Your task to perform on an android device: turn off location history Image 0: 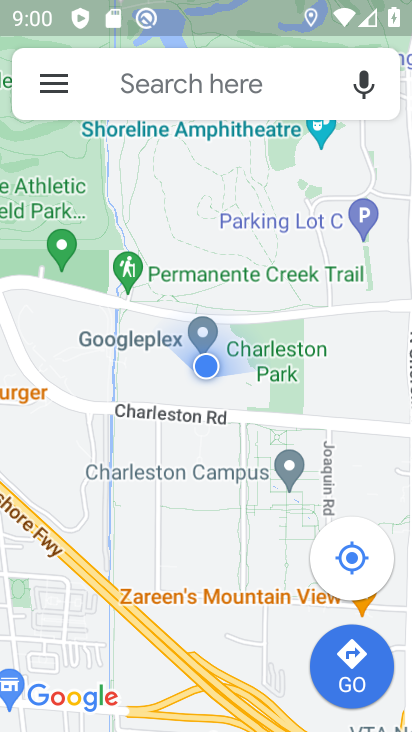
Step 0: click (34, 97)
Your task to perform on an android device: turn off location history Image 1: 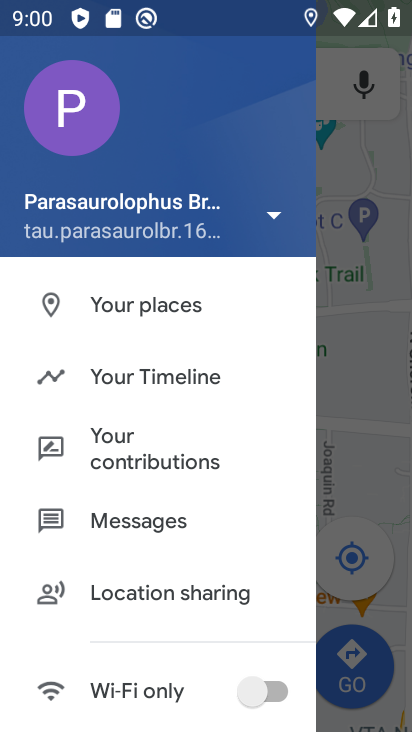
Step 1: click (151, 368)
Your task to perform on an android device: turn off location history Image 2: 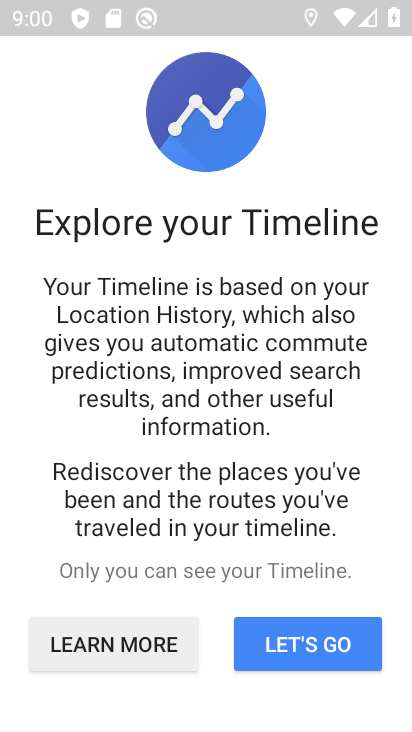
Step 2: click (331, 658)
Your task to perform on an android device: turn off location history Image 3: 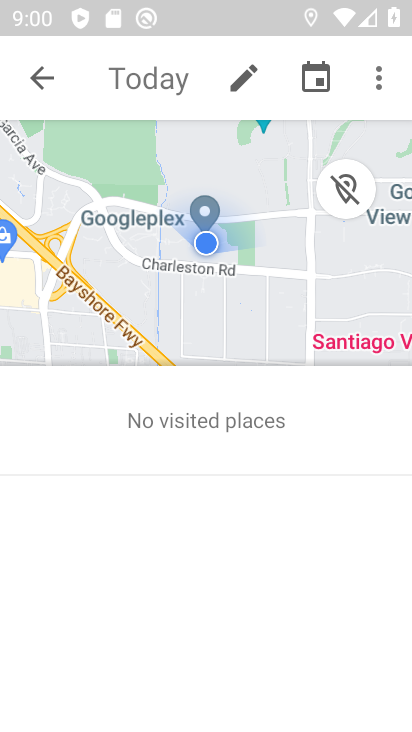
Step 3: click (375, 80)
Your task to perform on an android device: turn off location history Image 4: 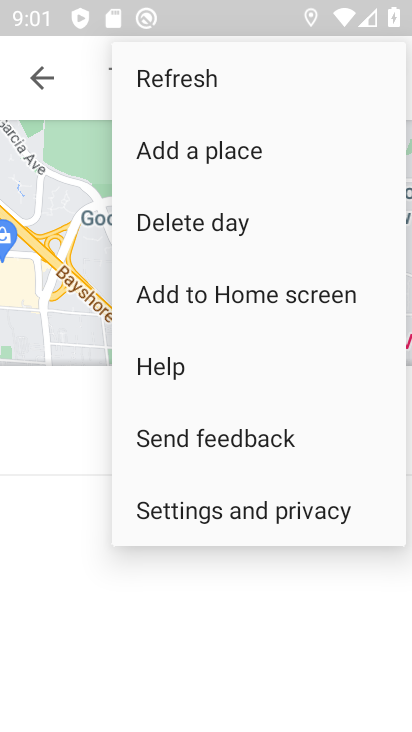
Step 4: click (253, 503)
Your task to perform on an android device: turn off location history Image 5: 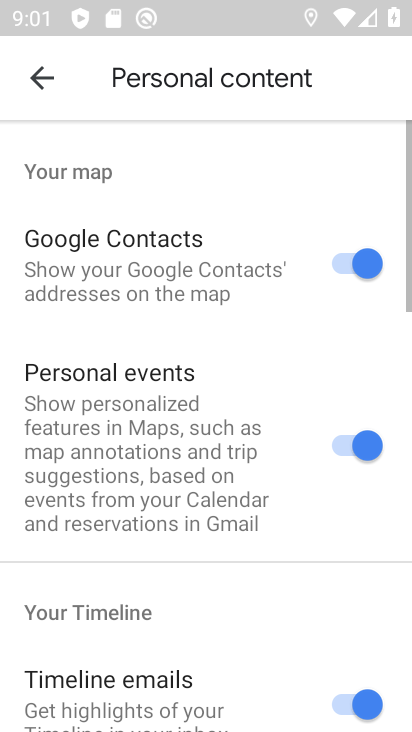
Step 5: drag from (275, 626) to (306, 328)
Your task to perform on an android device: turn off location history Image 6: 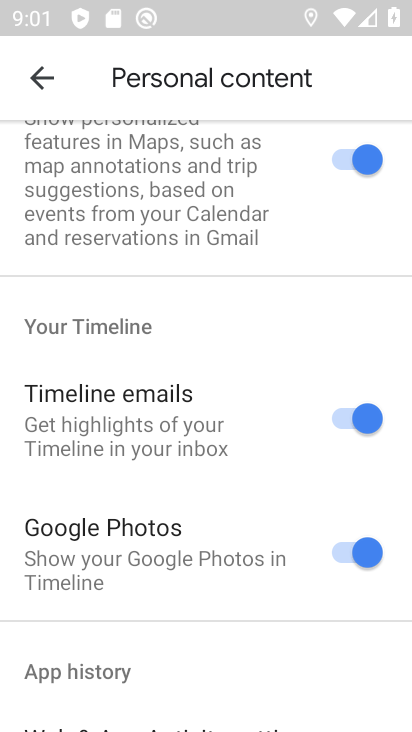
Step 6: drag from (208, 683) to (195, 275)
Your task to perform on an android device: turn off location history Image 7: 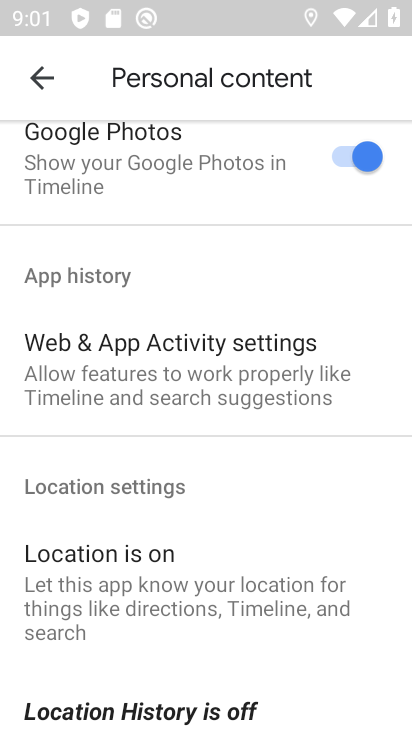
Step 7: drag from (249, 655) to (220, 347)
Your task to perform on an android device: turn off location history Image 8: 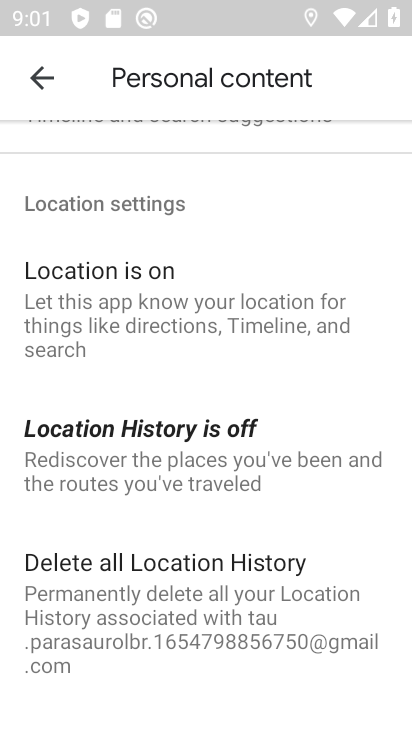
Step 8: click (187, 451)
Your task to perform on an android device: turn off location history Image 9: 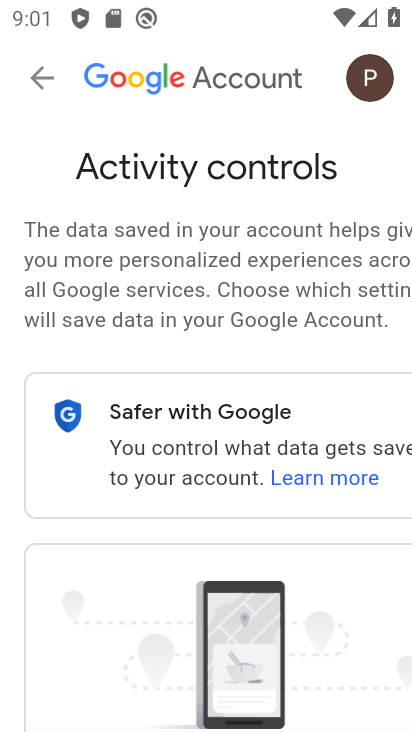
Step 9: task complete